Your task to perform on an android device: Play the last video I watched on Youtube Image 0: 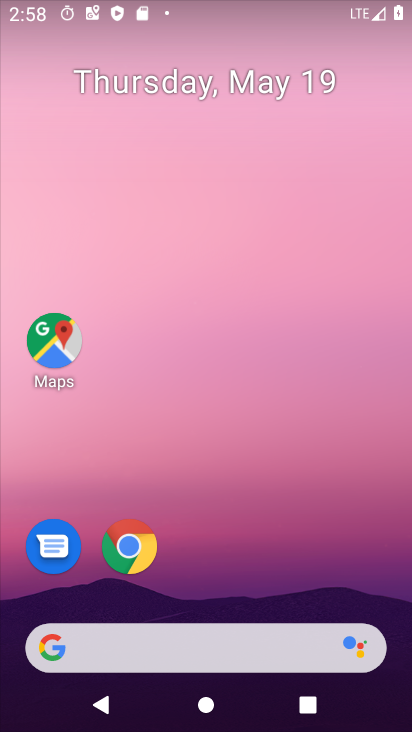
Step 0: drag from (163, 610) to (163, 463)
Your task to perform on an android device: Play the last video I watched on Youtube Image 1: 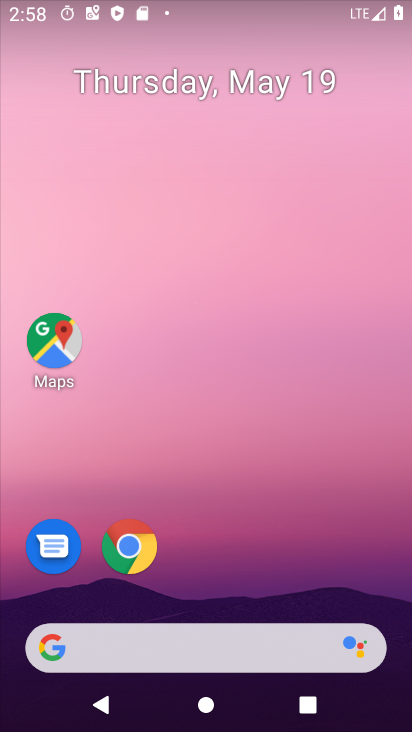
Step 1: drag from (102, 589) to (155, 189)
Your task to perform on an android device: Play the last video I watched on Youtube Image 2: 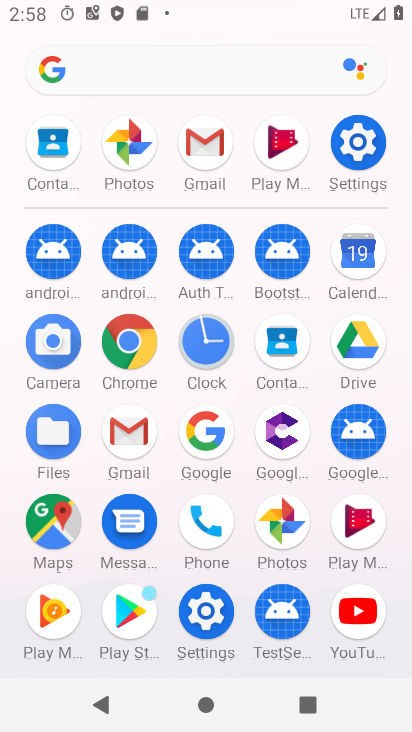
Step 2: click (355, 628)
Your task to perform on an android device: Play the last video I watched on Youtube Image 3: 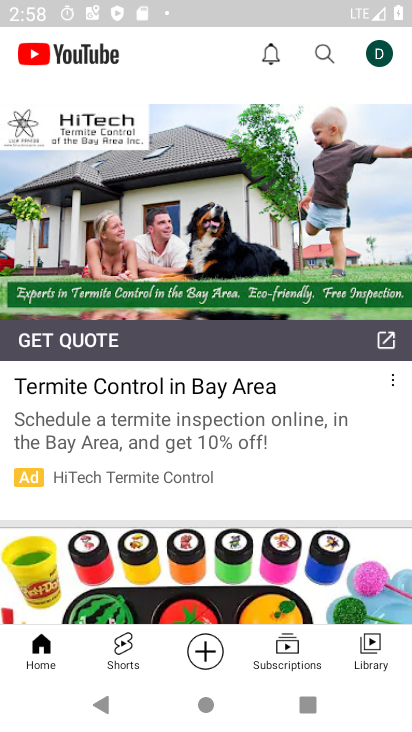
Step 3: click (361, 637)
Your task to perform on an android device: Play the last video I watched on Youtube Image 4: 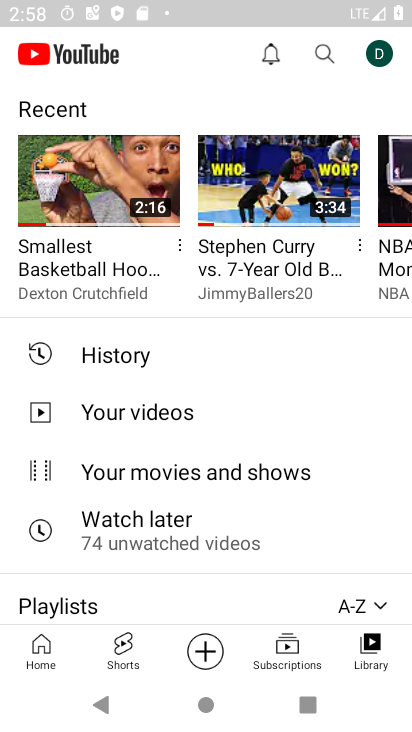
Step 4: click (83, 169)
Your task to perform on an android device: Play the last video I watched on Youtube Image 5: 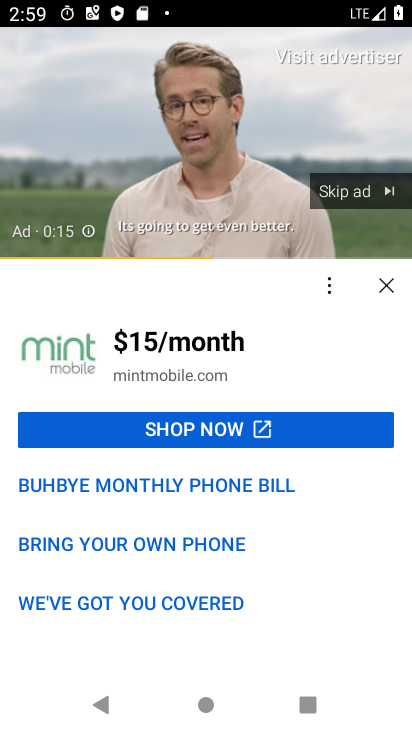
Step 5: click (334, 181)
Your task to perform on an android device: Play the last video I watched on Youtube Image 6: 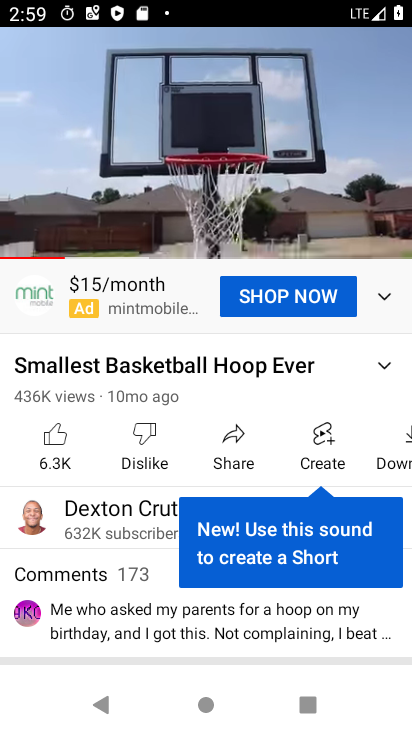
Step 6: task complete